Your task to perform on an android device: turn on wifi Image 0: 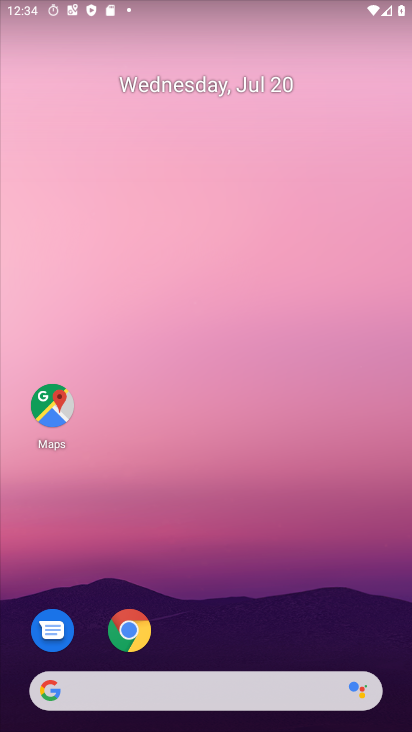
Step 0: drag from (207, 598) to (230, 86)
Your task to perform on an android device: turn on wifi Image 1: 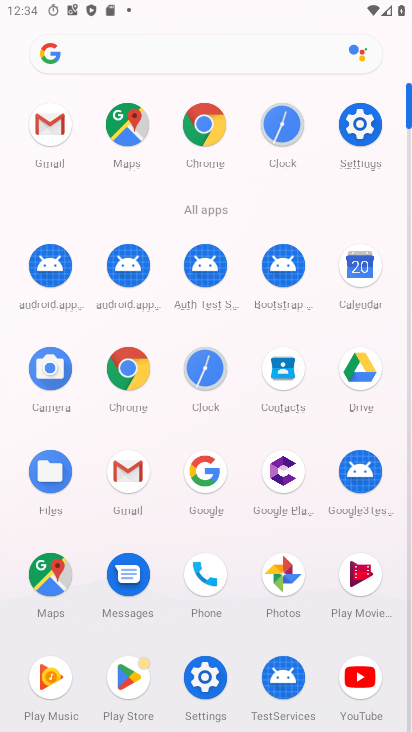
Step 1: click (365, 114)
Your task to perform on an android device: turn on wifi Image 2: 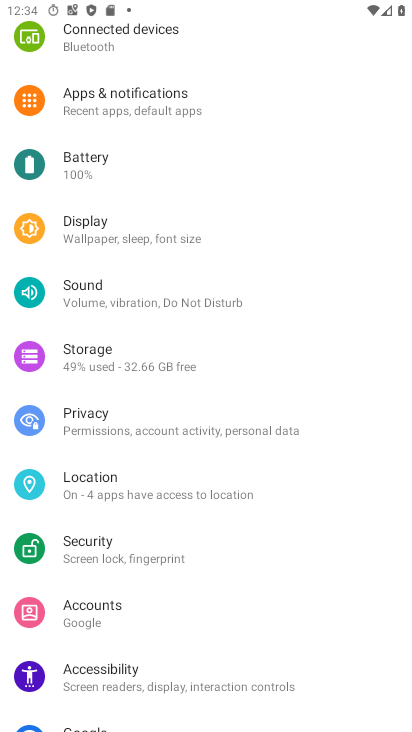
Step 2: drag from (187, 50) to (233, 370)
Your task to perform on an android device: turn on wifi Image 3: 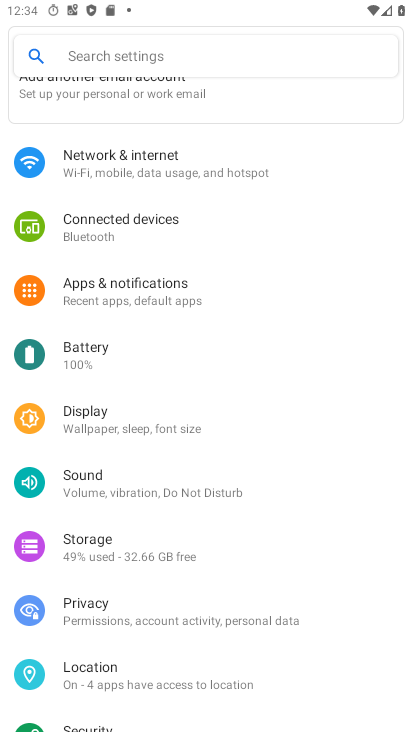
Step 3: click (295, 176)
Your task to perform on an android device: turn on wifi Image 4: 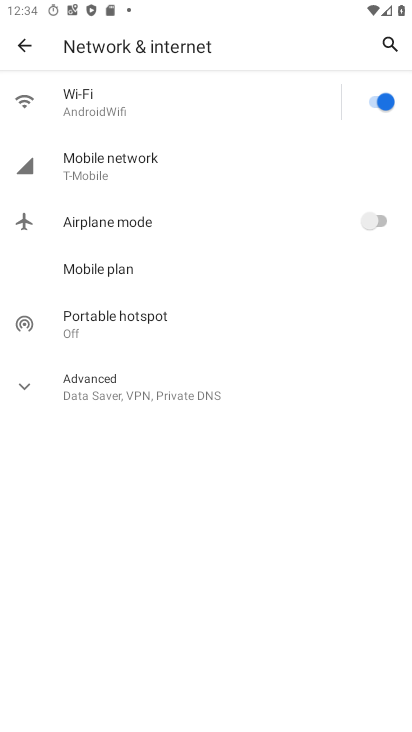
Step 4: task complete